Your task to perform on an android device: Open Wikipedia Image 0: 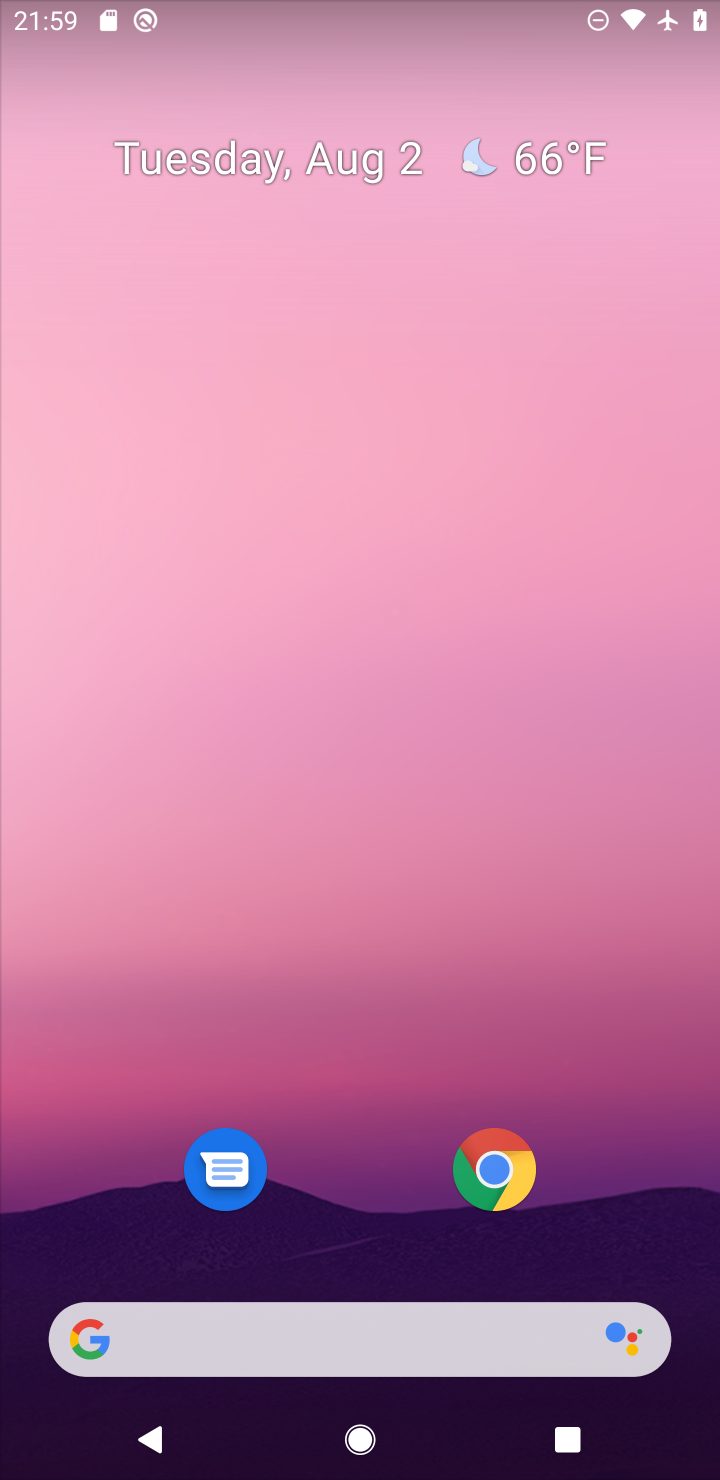
Step 0: click (496, 1169)
Your task to perform on an android device: Open Wikipedia Image 1: 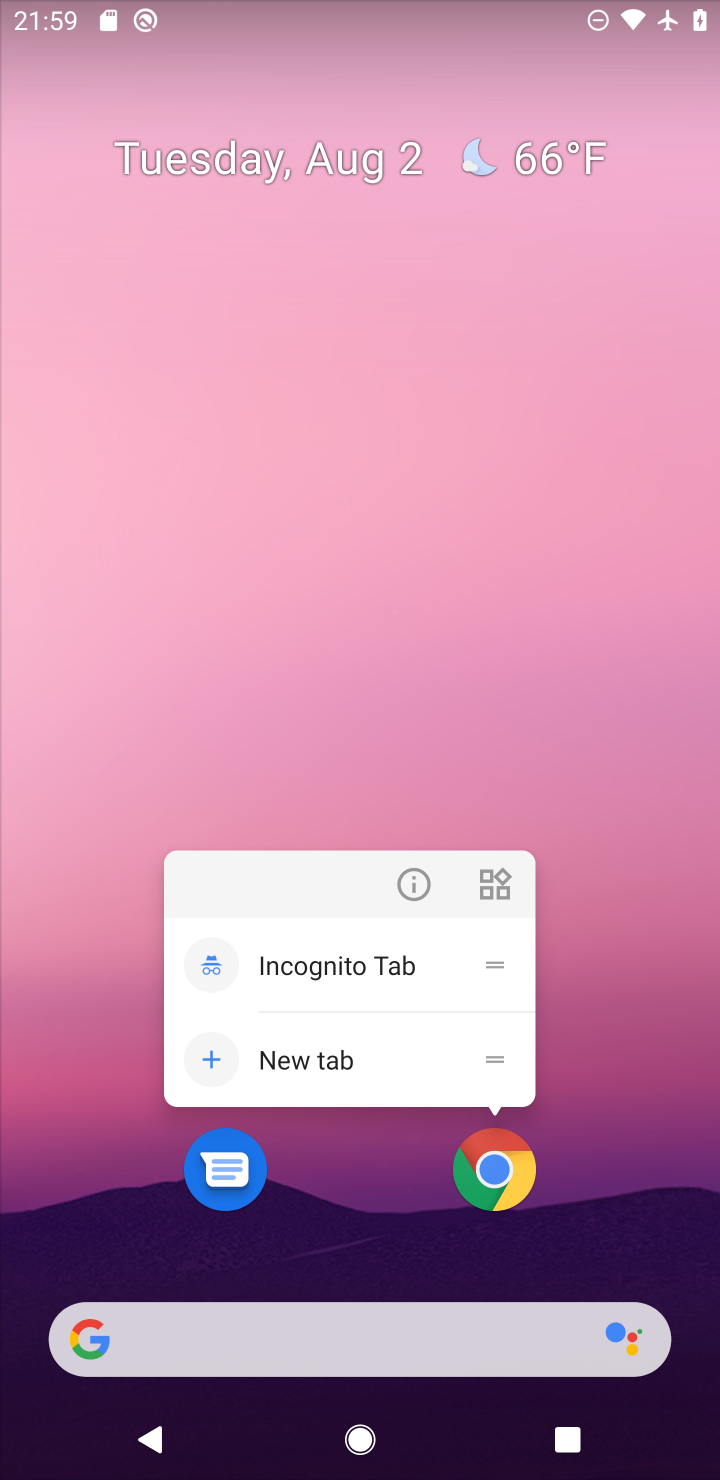
Step 1: click (495, 1171)
Your task to perform on an android device: Open Wikipedia Image 2: 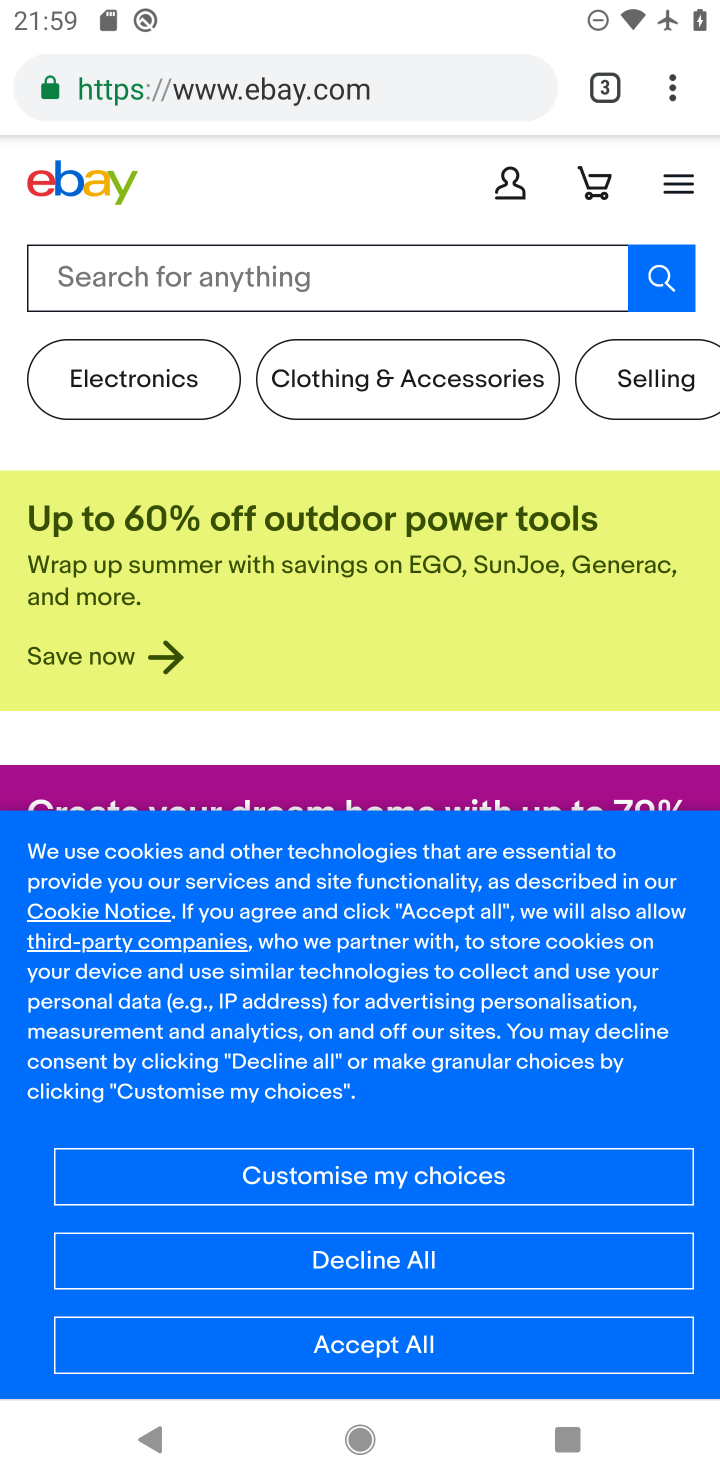
Step 2: click (675, 98)
Your task to perform on an android device: Open Wikipedia Image 3: 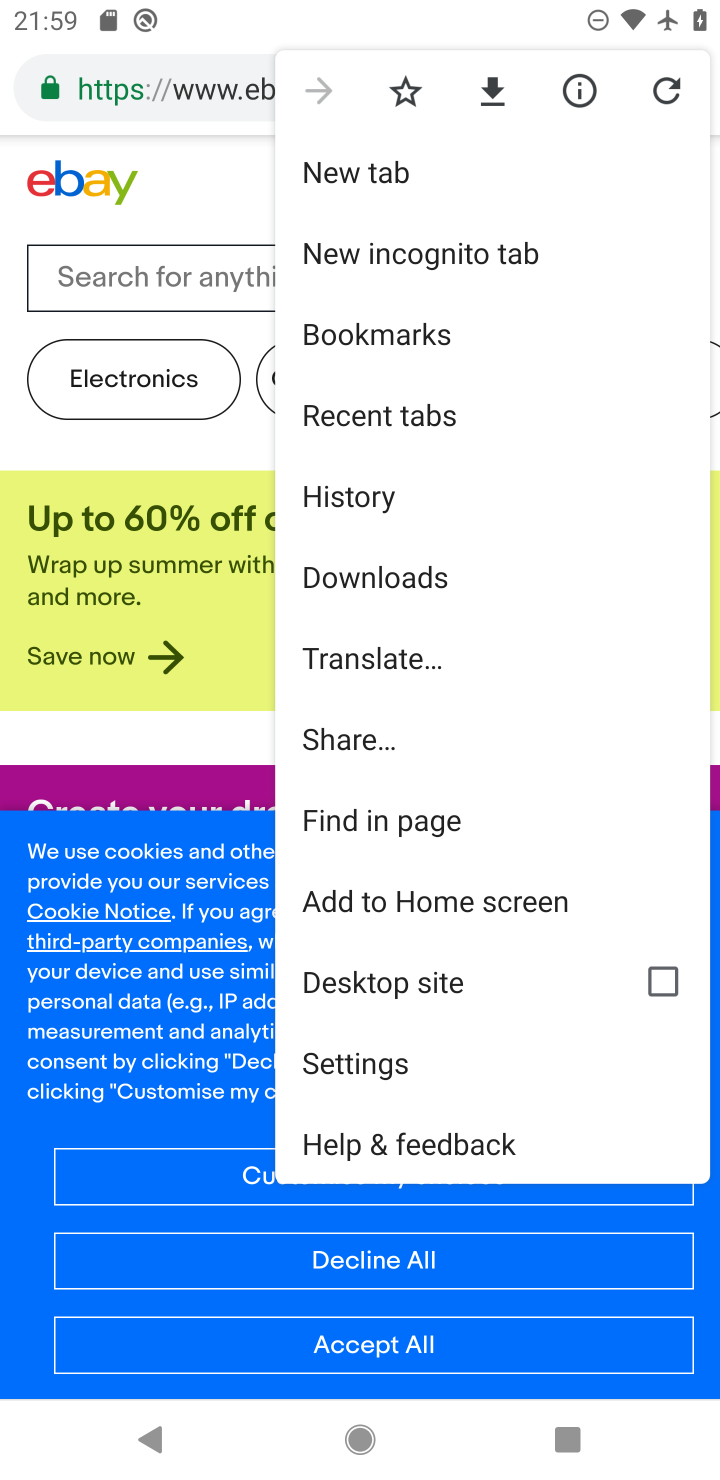
Step 3: click (357, 162)
Your task to perform on an android device: Open Wikipedia Image 4: 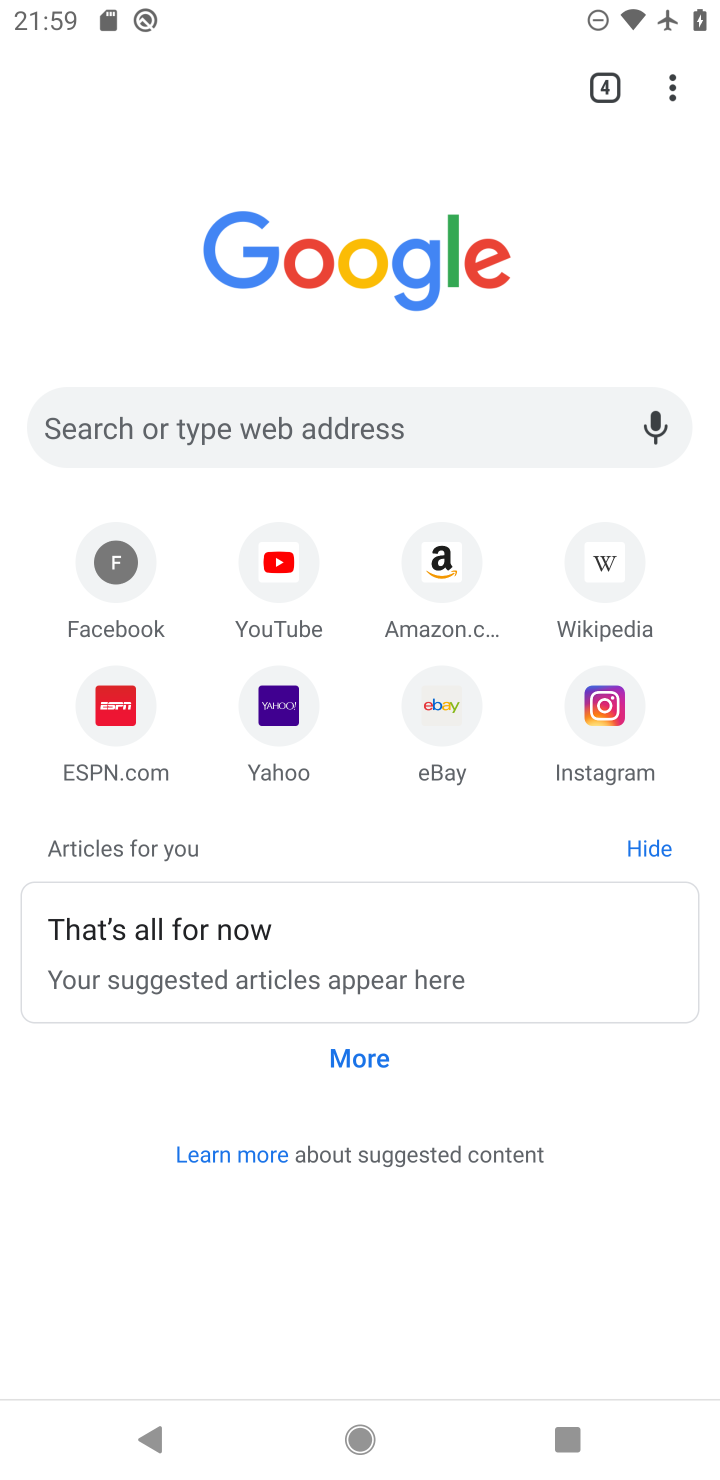
Step 4: click (595, 565)
Your task to perform on an android device: Open Wikipedia Image 5: 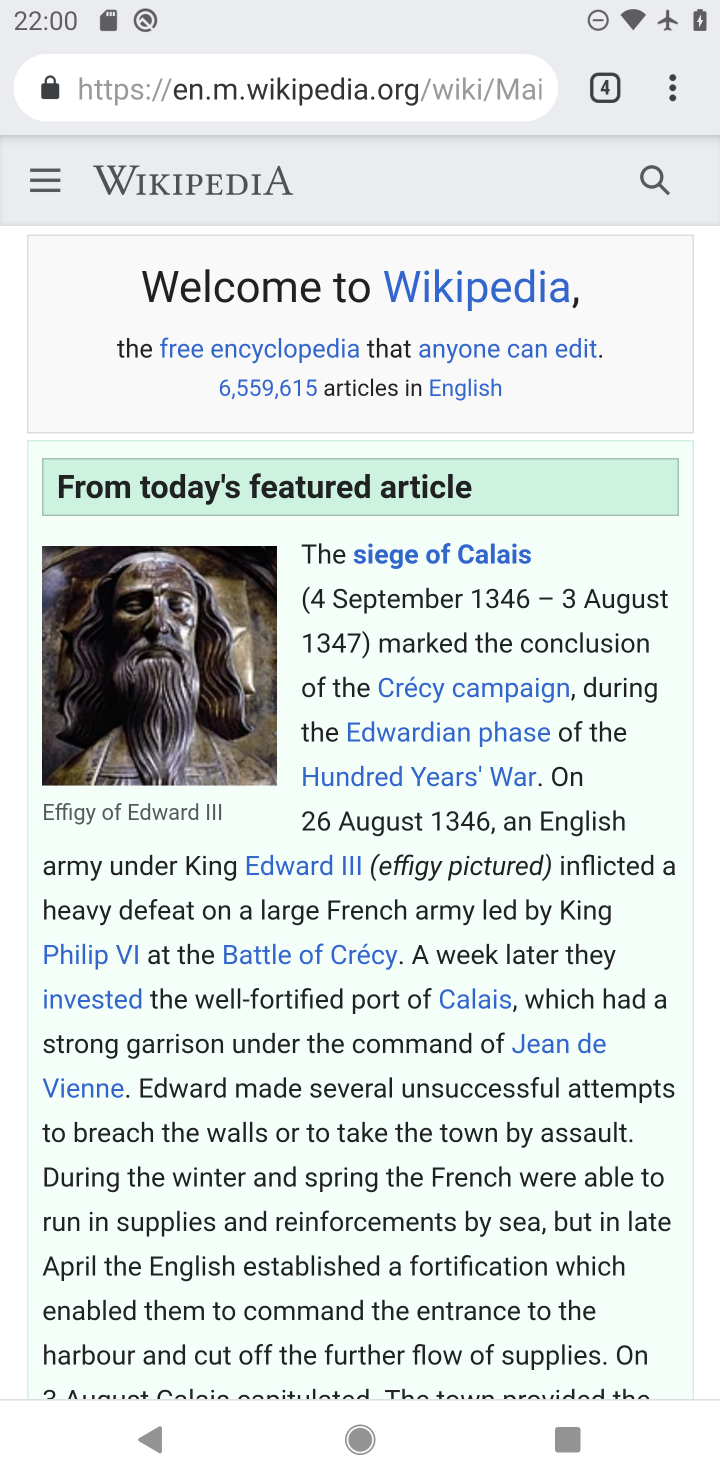
Step 5: task complete